Your task to perform on an android device: open a new tab in the chrome app Image 0: 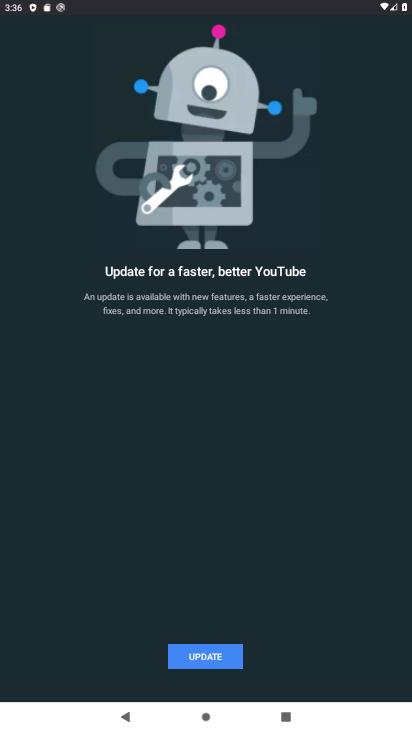
Step 0: press back button
Your task to perform on an android device: open a new tab in the chrome app Image 1: 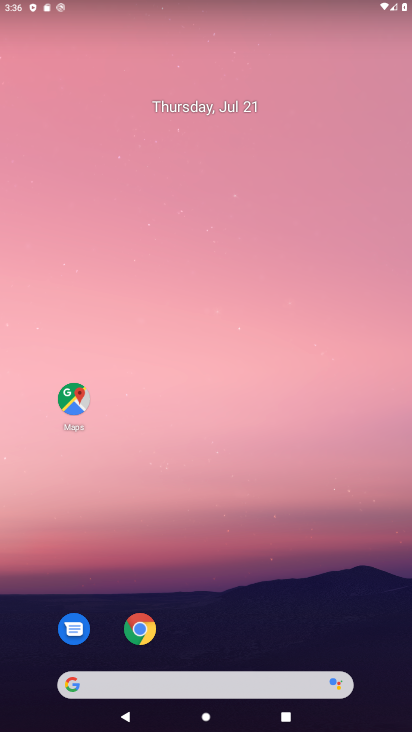
Step 1: click (143, 626)
Your task to perform on an android device: open a new tab in the chrome app Image 2: 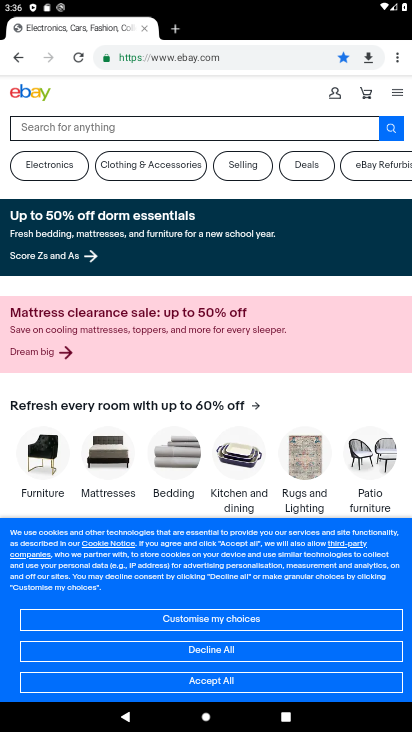
Step 2: click (173, 29)
Your task to perform on an android device: open a new tab in the chrome app Image 3: 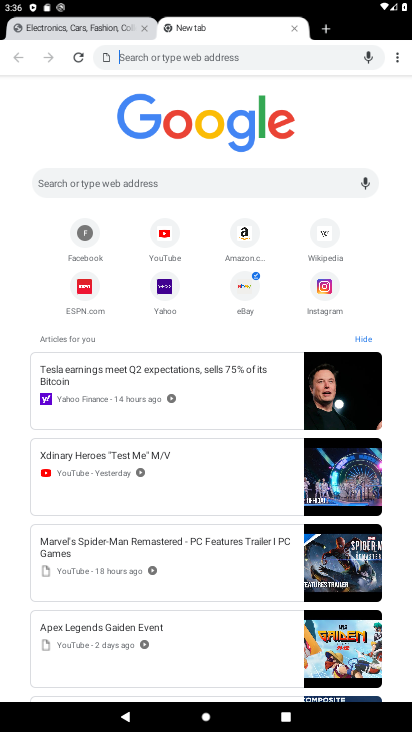
Step 3: click (143, 27)
Your task to perform on an android device: open a new tab in the chrome app Image 4: 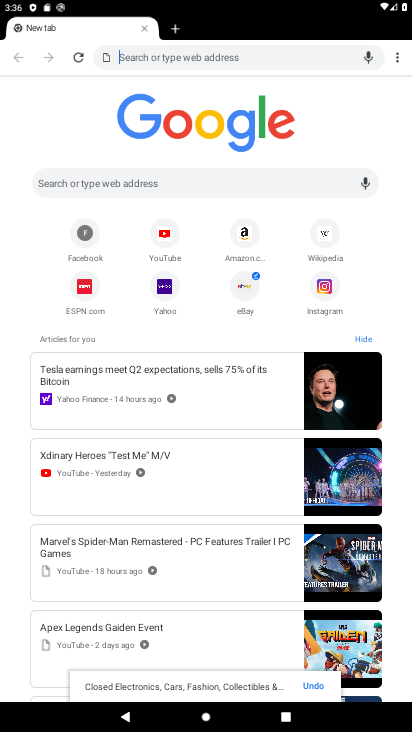
Step 4: task complete